Your task to perform on an android device: Open calendar and show me the first week of next month Image 0: 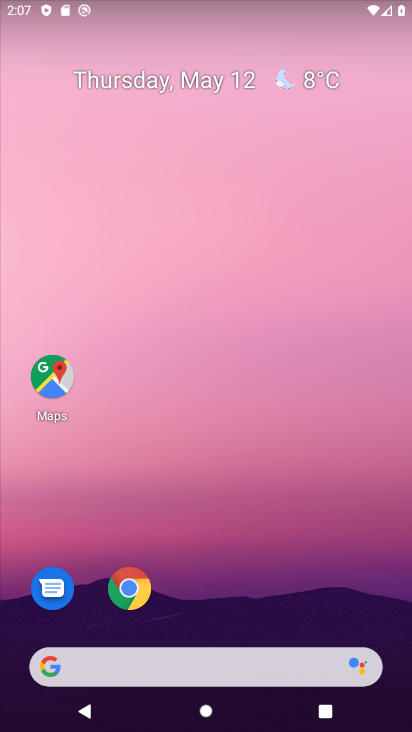
Step 0: drag from (280, 615) to (305, 189)
Your task to perform on an android device: Open calendar and show me the first week of next month Image 1: 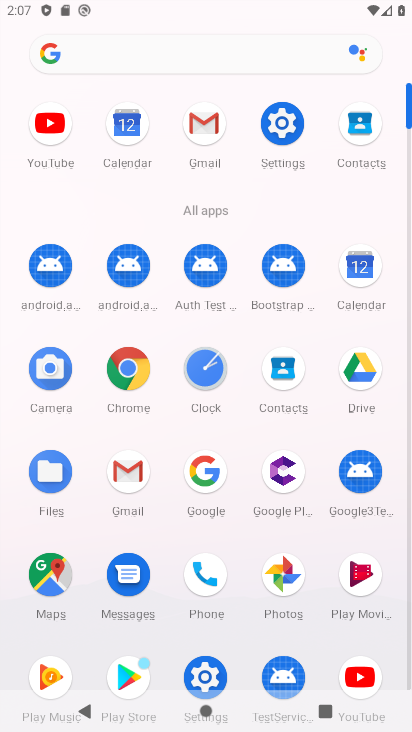
Step 1: click (122, 137)
Your task to perform on an android device: Open calendar and show me the first week of next month Image 2: 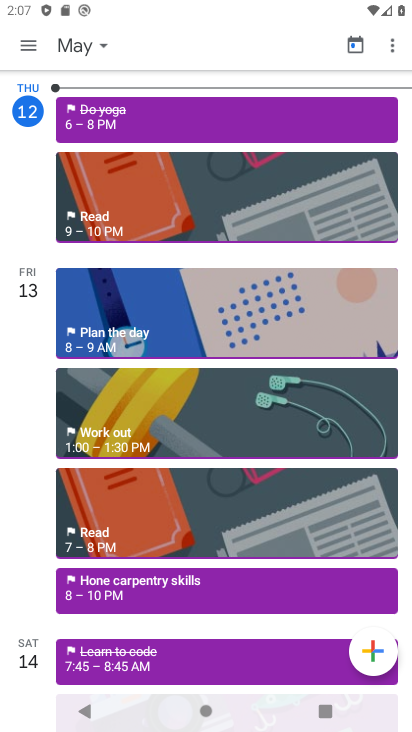
Step 2: click (98, 44)
Your task to perform on an android device: Open calendar and show me the first week of next month Image 3: 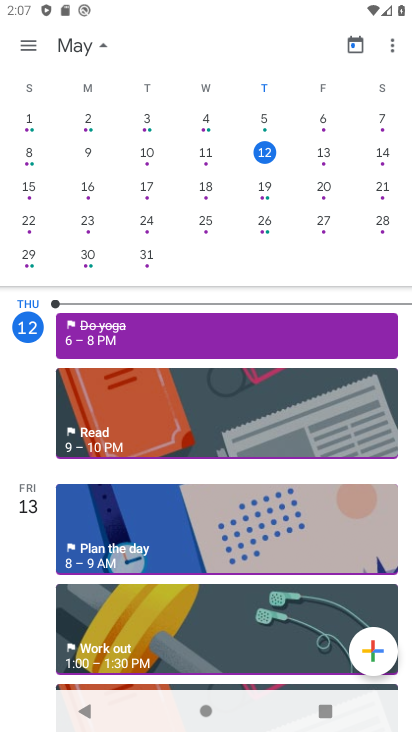
Step 3: drag from (352, 265) to (47, 236)
Your task to perform on an android device: Open calendar and show me the first week of next month Image 4: 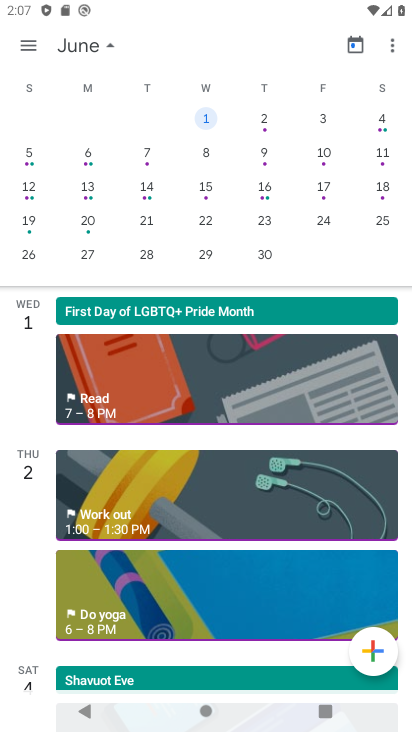
Step 4: click (214, 143)
Your task to perform on an android device: Open calendar and show me the first week of next month Image 5: 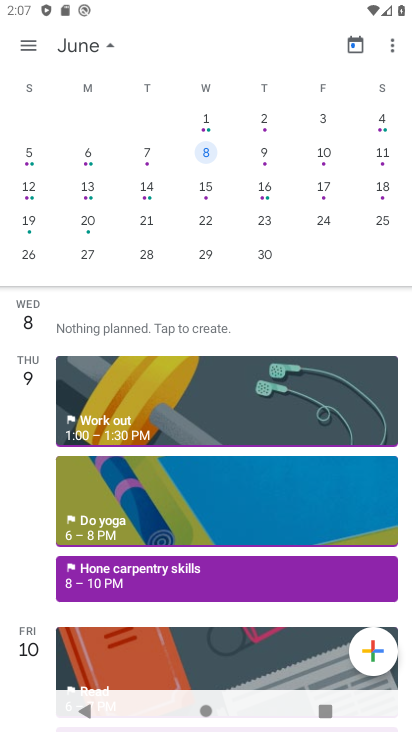
Step 5: task complete